Your task to perform on an android device: Toggle the flashlight Image 0: 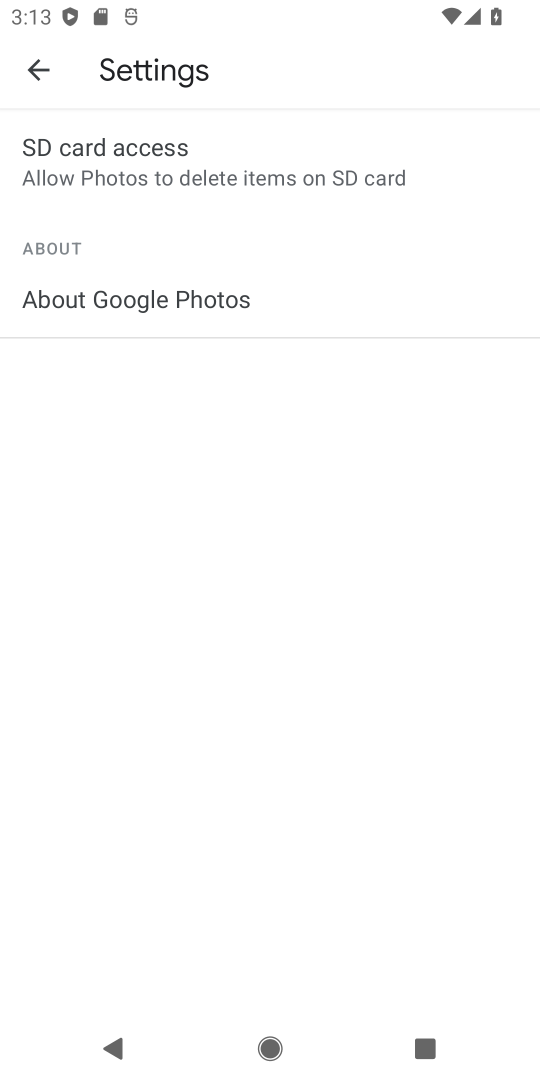
Step 0: press home button
Your task to perform on an android device: Toggle the flashlight Image 1: 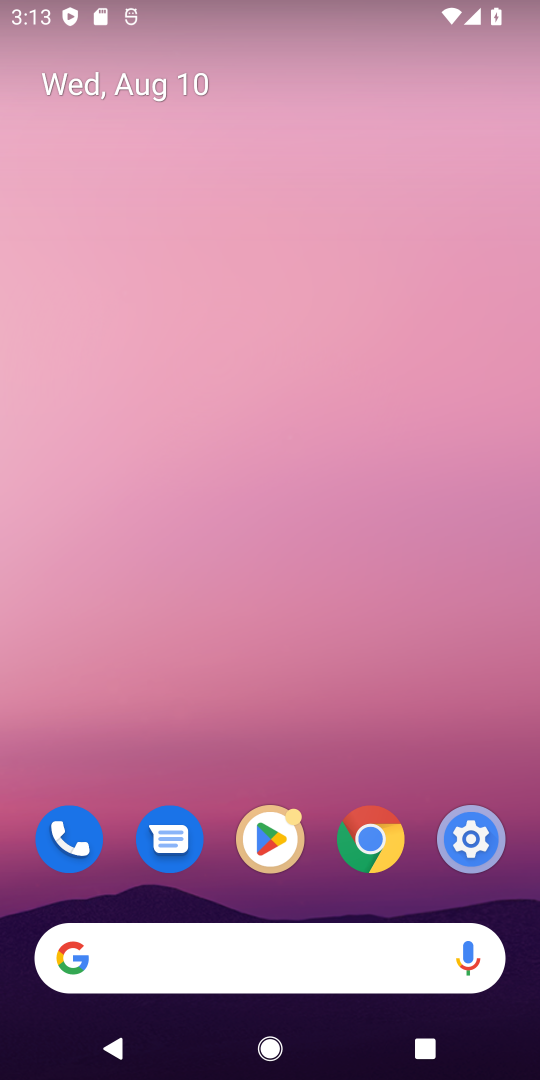
Step 1: click (483, 835)
Your task to perform on an android device: Toggle the flashlight Image 2: 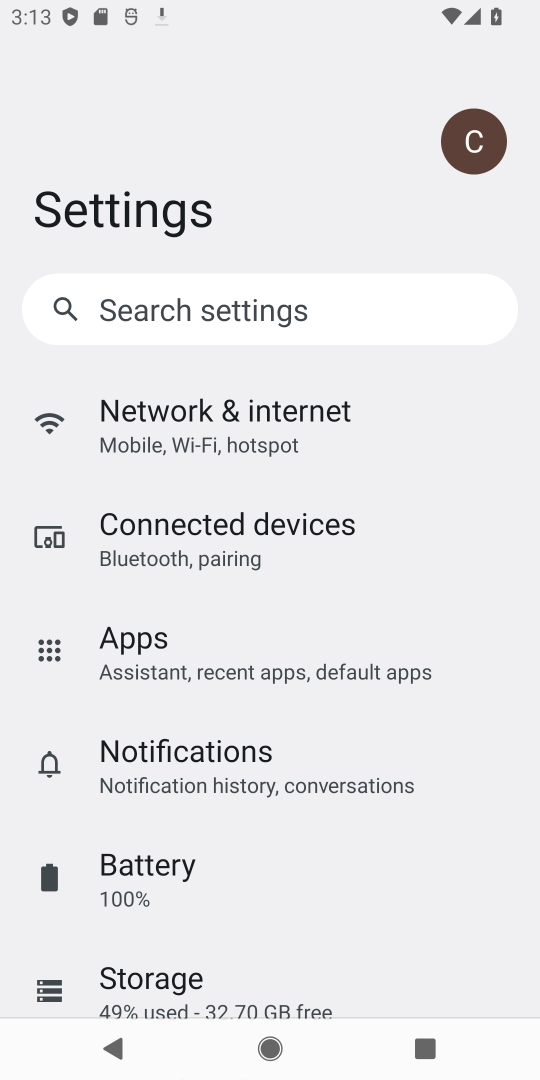
Step 2: click (327, 312)
Your task to perform on an android device: Toggle the flashlight Image 3: 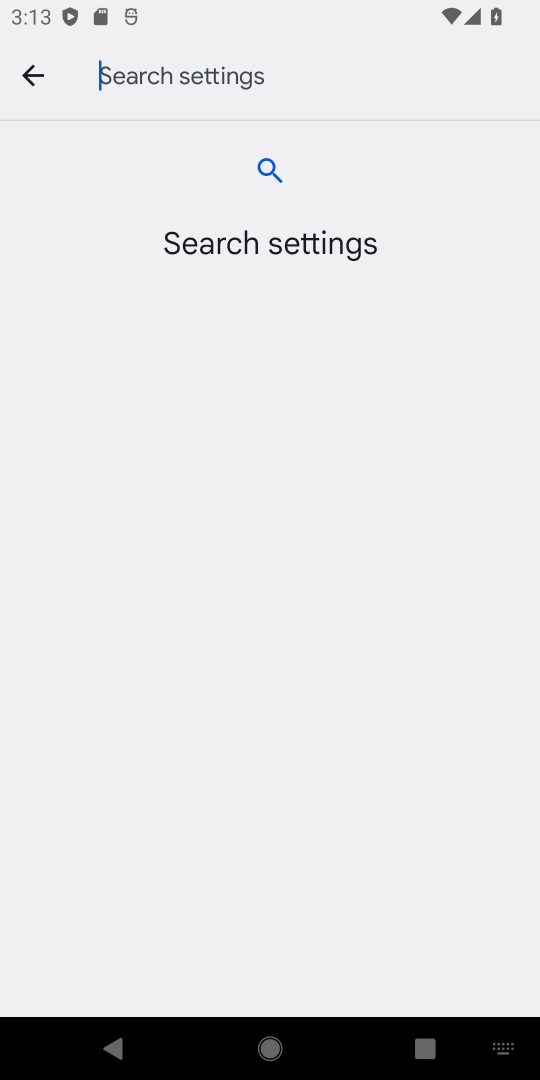
Step 3: type "Flashlight"
Your task to perform on an android device: Toggle the flashlight Image 4: 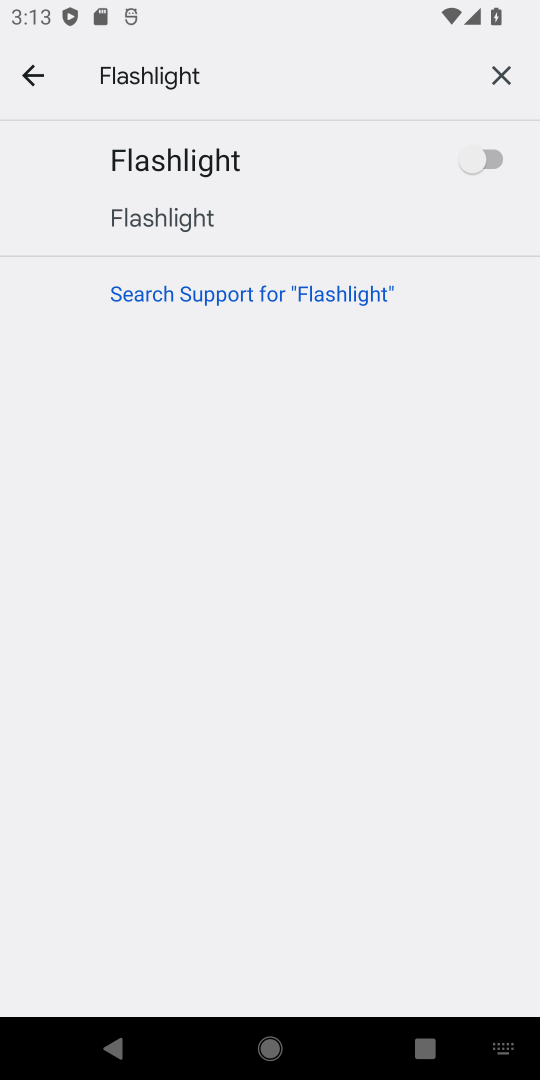
Step 4: click (484, 161)
Your task to perform on an android device: Toggle the flashlight Image 5: 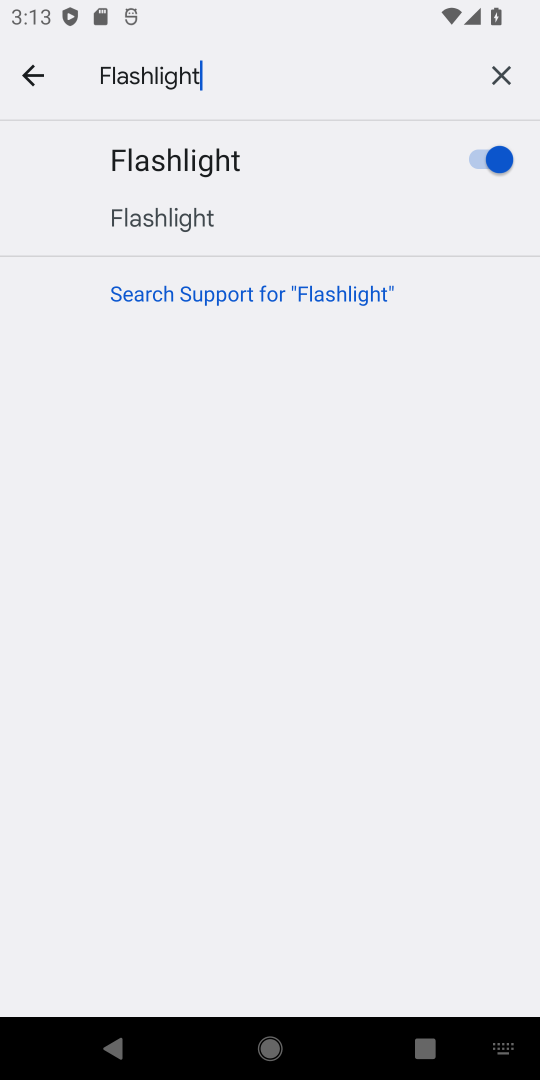
Step 5: task complete